Your task to perform on an android device: change keyboard looks Image 0: 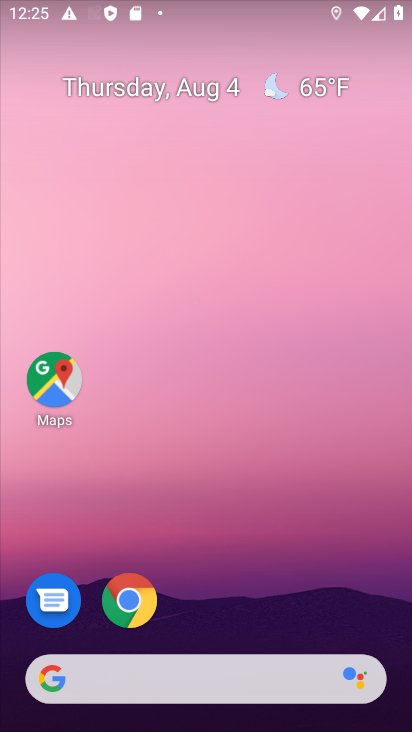
Step 0: drag from (238, 636) to (366, 720)
Your task to perform on an android device: change keyboard looks Image 1: 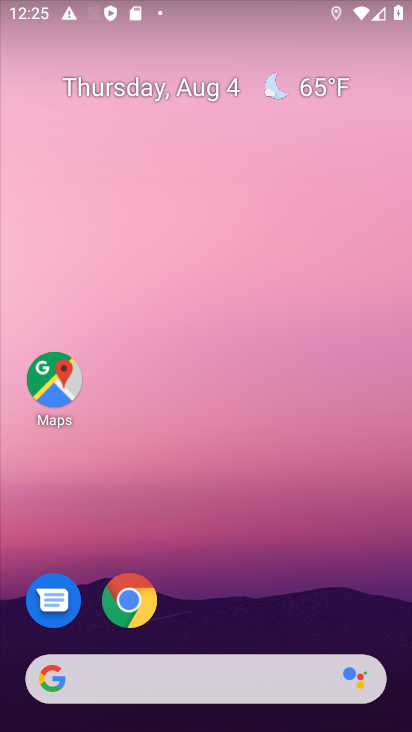
Step 1: click (221, 643)
Your task to perform on an android device: change keyboard looks Image 2: 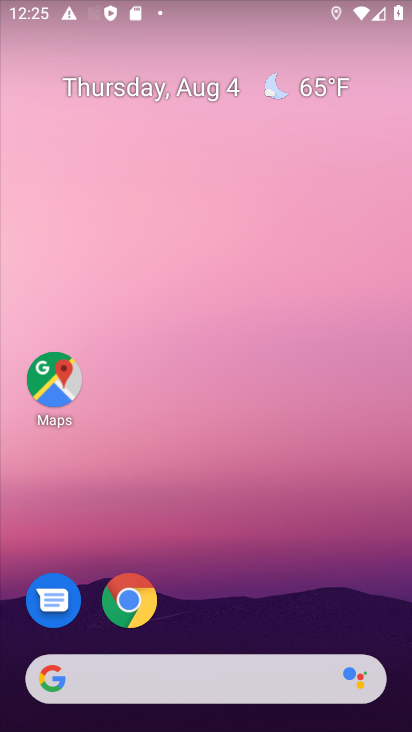
Step 2: drag from (221, 643) to (158, 134)
Your task to perform on an android device: change keyboard looks Image 3: 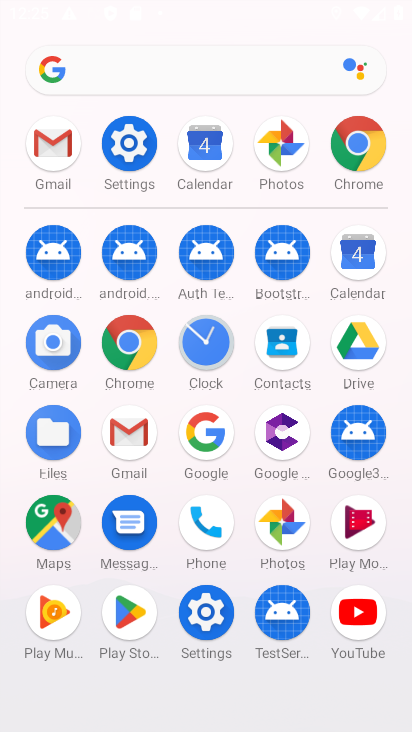
Step 3: click (101, 143)
Your task to perform on an android device: change keyboard looks Image 4: 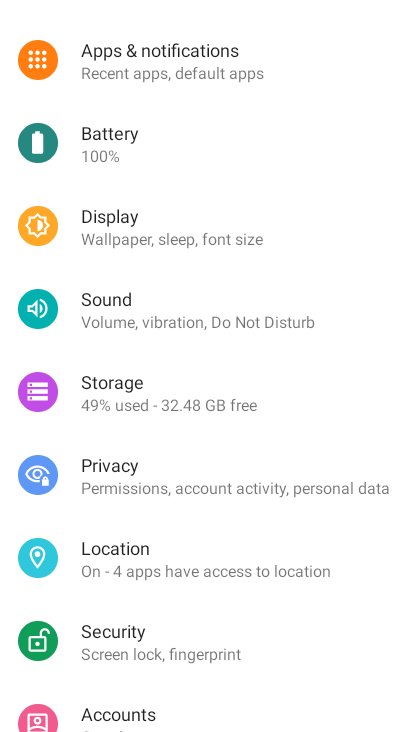
Step 4: click (127, 232)
Your task to perform on an android device: change keyboard looks Image 5: 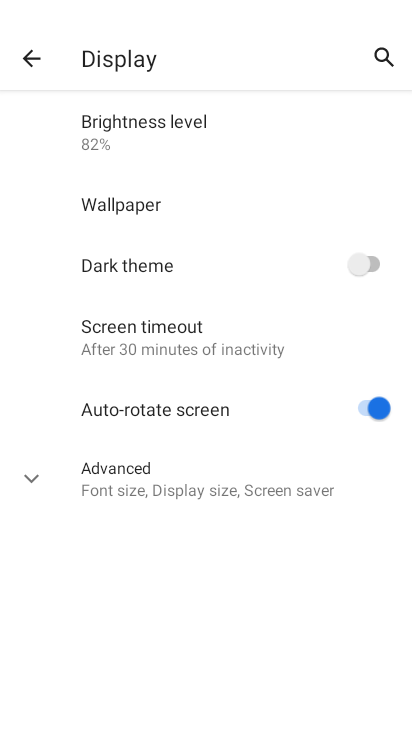
Step 5: click (159, 496)
Your task to perform on an android device: change keyboard looks Image 6: 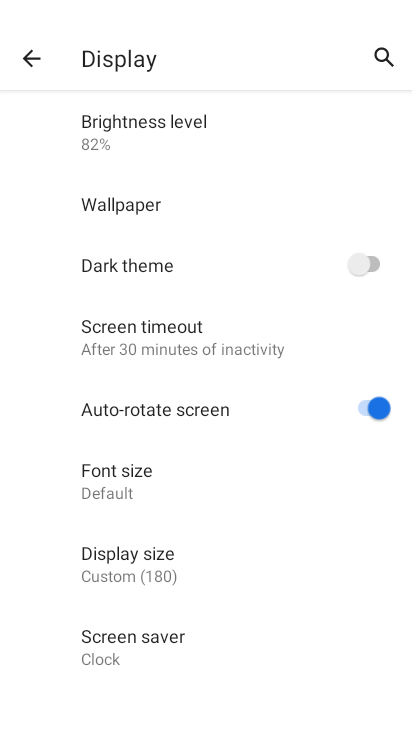
Step 6: click (33, 42)
Your task to perform on an android device: change keyboard looks Image 7: 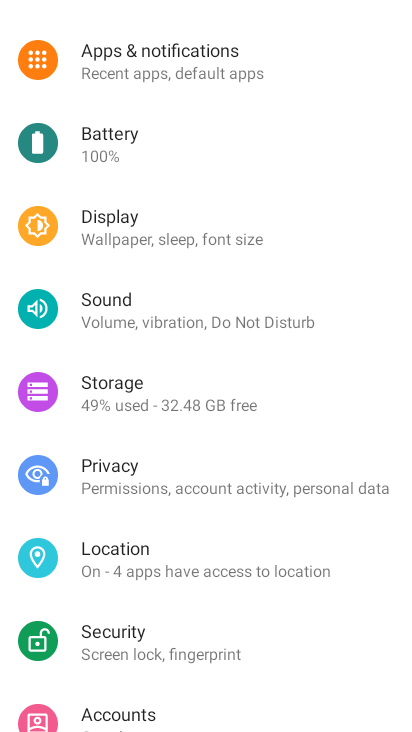
Step 7: drag from (315, 619) to (160, 129)
Your task to perform on an android device: change keyboard looks Image 8: 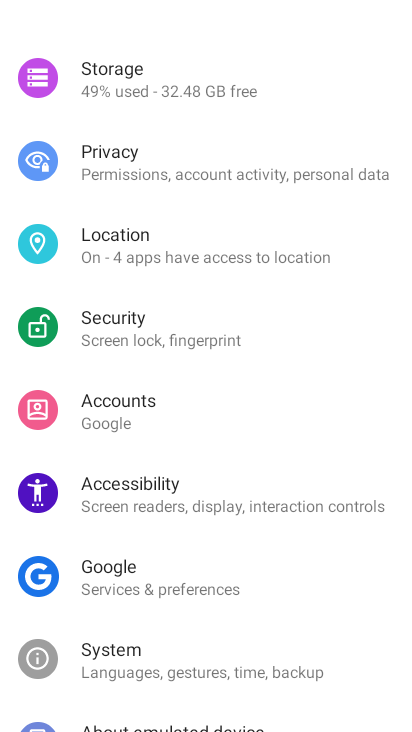
Step 8: click (123, 646)
Your task to perform on an android device: change keyboard looks Image 9: 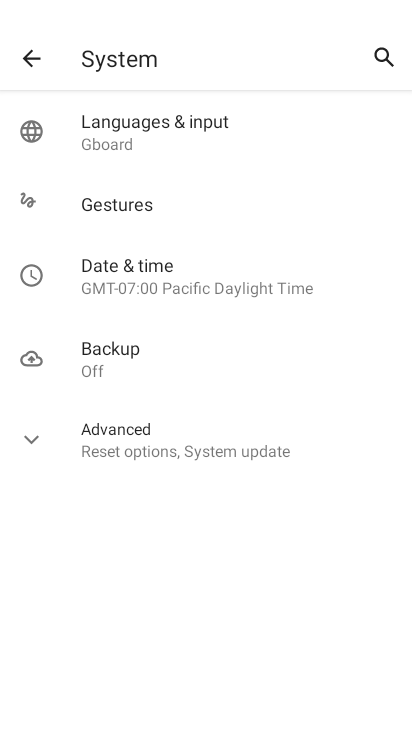
Step 9: click (99, 150)
Your task to perform on an android device: change keyboard looks Image 10: 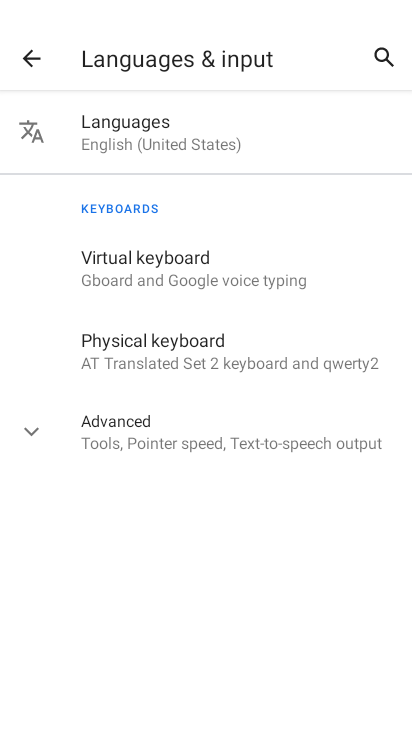
Step 10: click (157, 268)
Your task to perform on an android device: change keyboard looks Image 11: 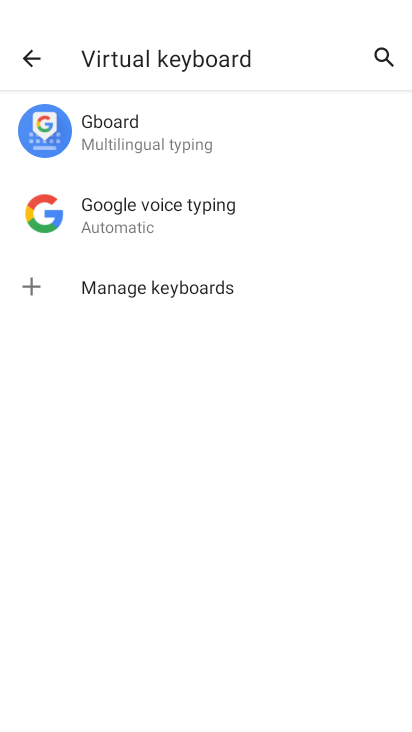
Step 11: click (108, 134)
Your task to perform on an android device: change keyboard looks Image 12: 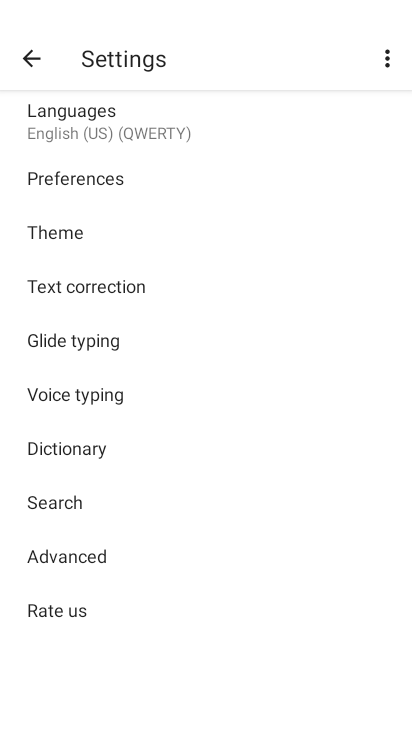
Step 12: click (70, 240)
Your task to perform on an android device: change keyboard looks Image 13: 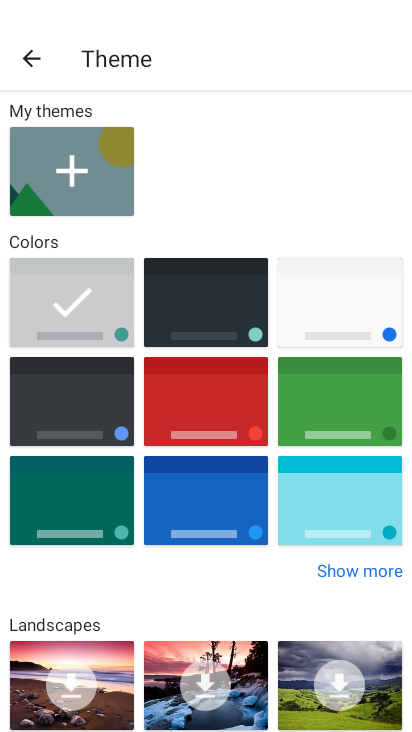
Step 13: click (148, 300)
Your task to perform on an android device: change keyboard looks Image 14: 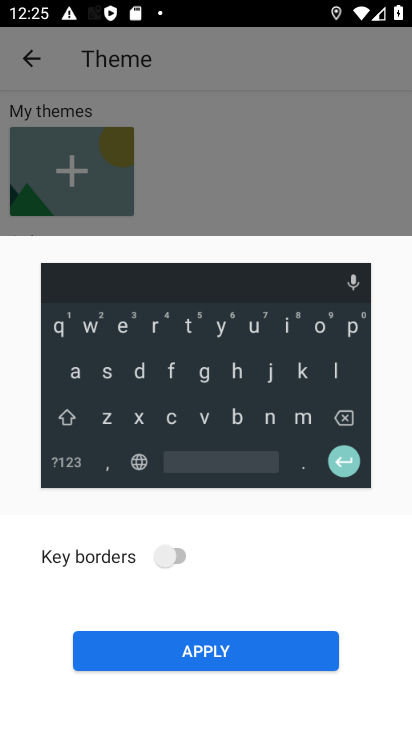
Step 14: click (161, 647)
Your task to perform on an android device: change keyboard looks Image 15: 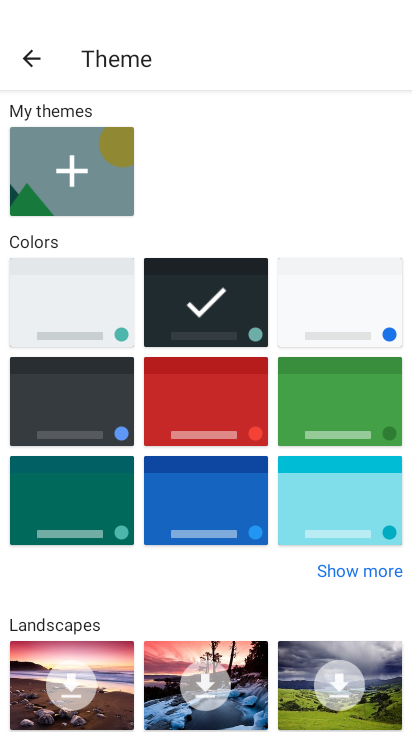
Step 15: task complete